Your task to perform on an android device: read, delete, or share a saved page in the chrome app Image 0: 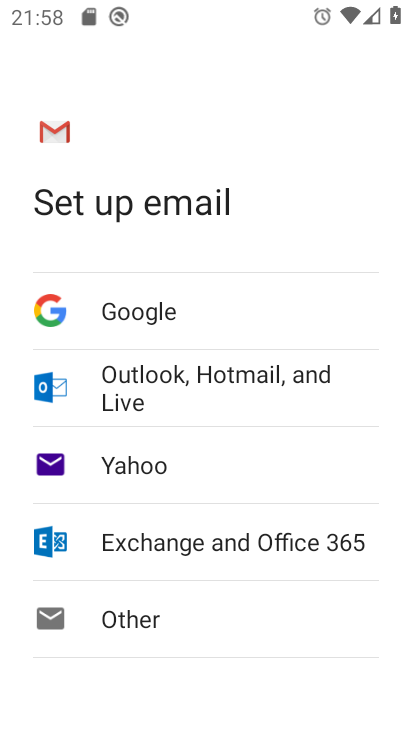
Step 0: press home button
Your task to perform on an android device: read, delete, or share a saved page in the chrome app Image 1: 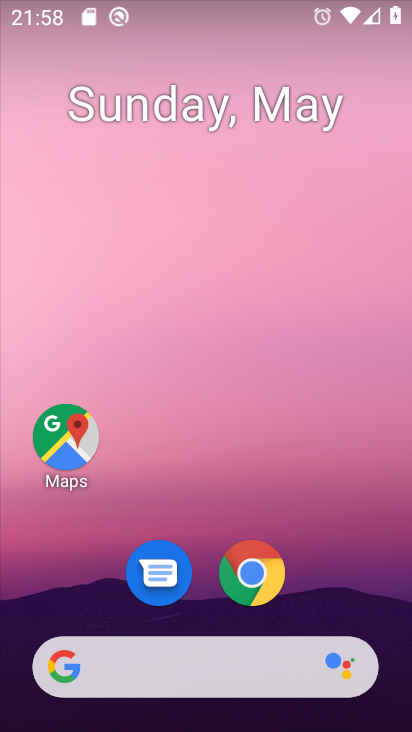
Step 1: click (268, 573)
Your task to perform on an android device: read, delete, or share a saved page in the chrome app Image 2: 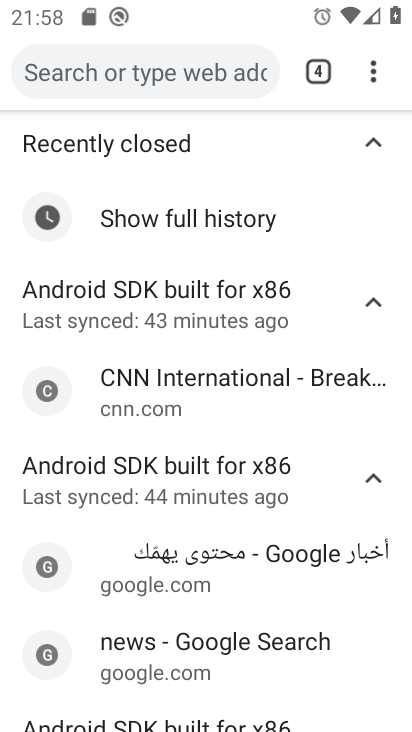
Step 2: click (371, 72)
Your task to perform on an android device: read, delete, or share a saved page in the chrome app Image 3: 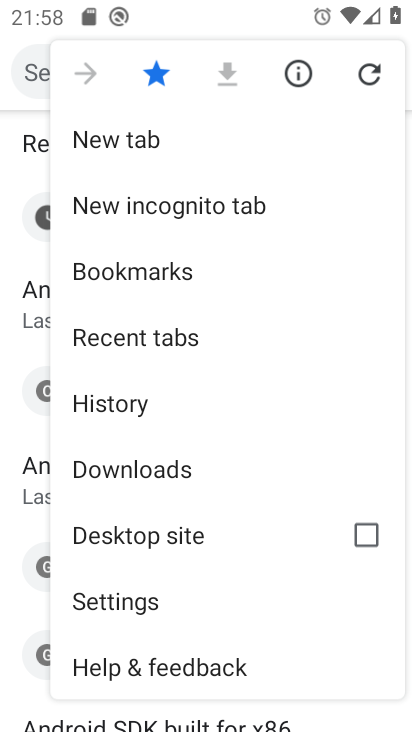
Step 3: click (168, 458)
Your task to perform on an android device: read, delete, or share a saved page in the chrome app Image 4: 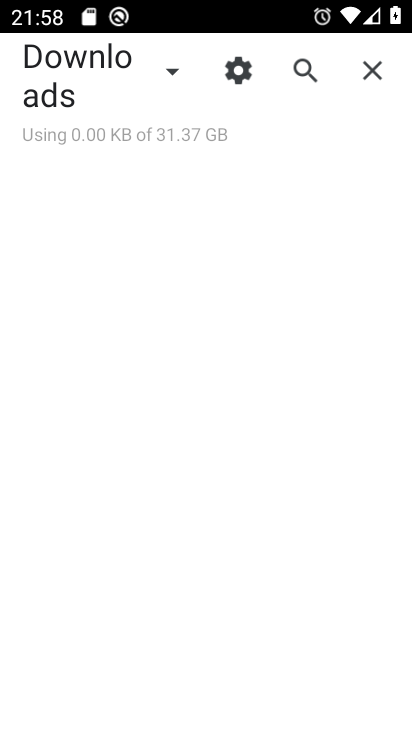
Step 4: task complete